Your task to perform on an android device: change alarm snooze length Image 0: 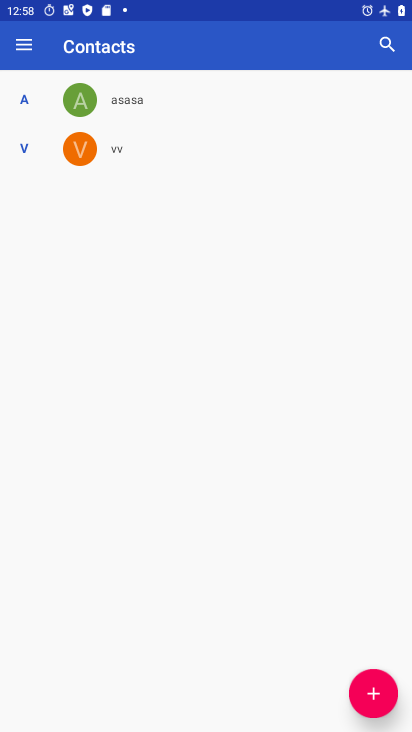
Step 0: press home button
Your task to perform on an android device: change alarm snooze length Image 1: 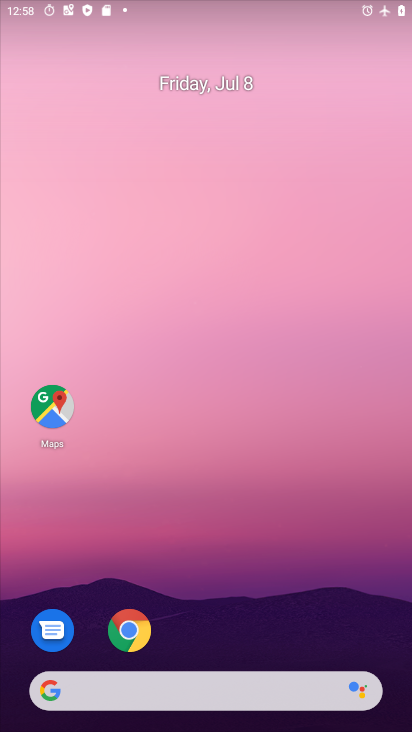
Step 1: drag from (211, 638) to (220, 141)
Your task to perform on an android device: change alarm snooze length Image 2: 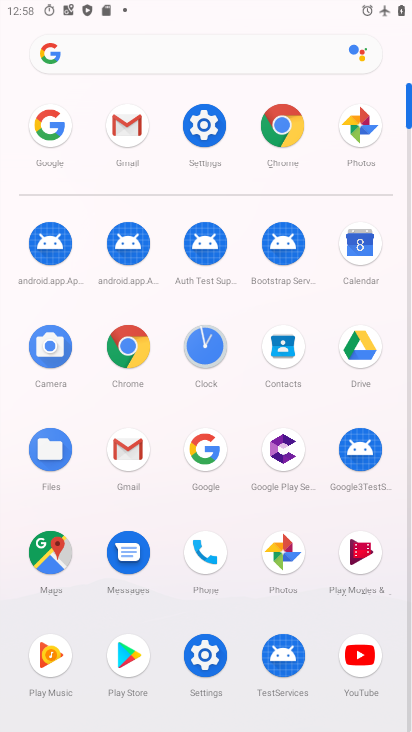
Step 2: click (203, 351)
Your task to perform on an android device: change alarm snooze length Image 3: 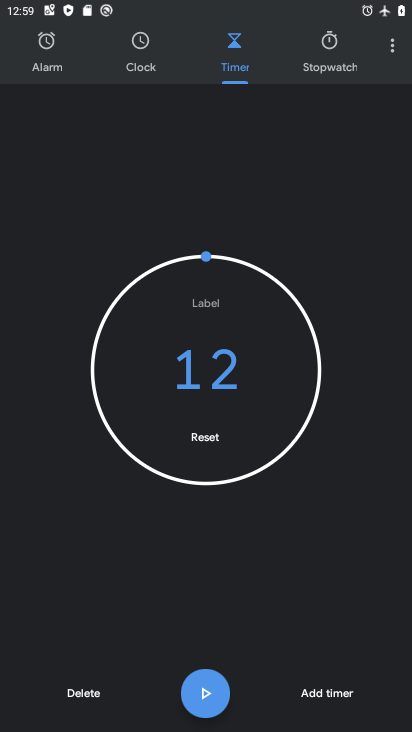
Step 3: click (383, 49)
Your task to perform on an android device: change alarm snooze length Image 4: 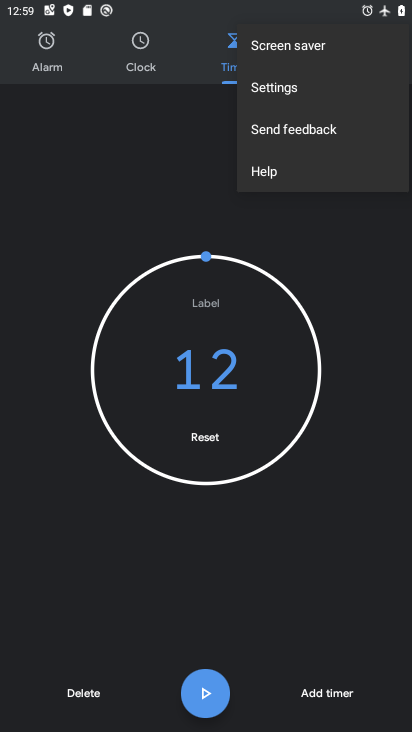
Step 4: click (289, 87)
Your task to perform on an android device: change alarm snooze length Image 5: 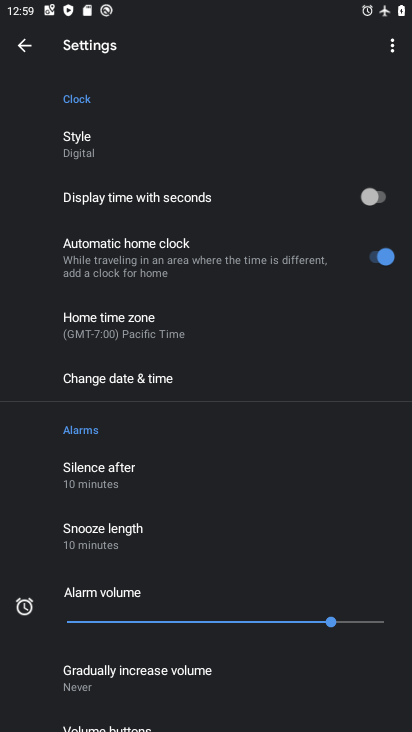
Step 5: click (181, 548)
Your task to perform on an android device: change alarm snooze length Image 6: 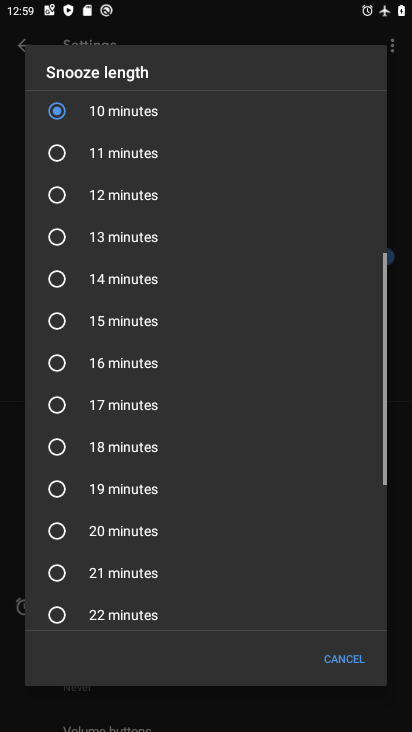
Step 6: click (160, 450)
Your task to perform on an android device: change alarm snooze length Image 7: 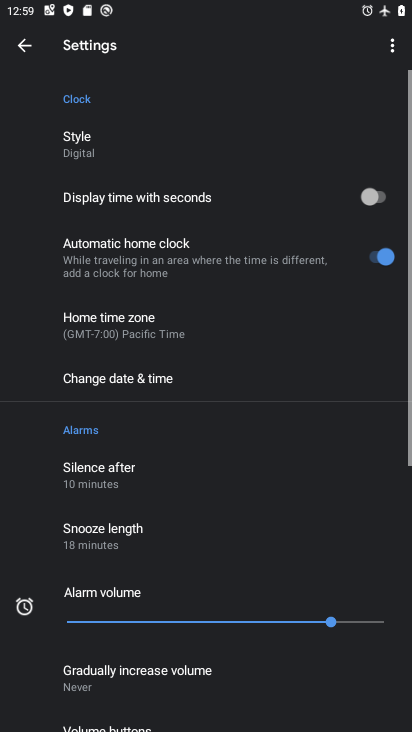
Step 7: task complete